Your task to perform on an android device: open device folders in google photos Image 0: 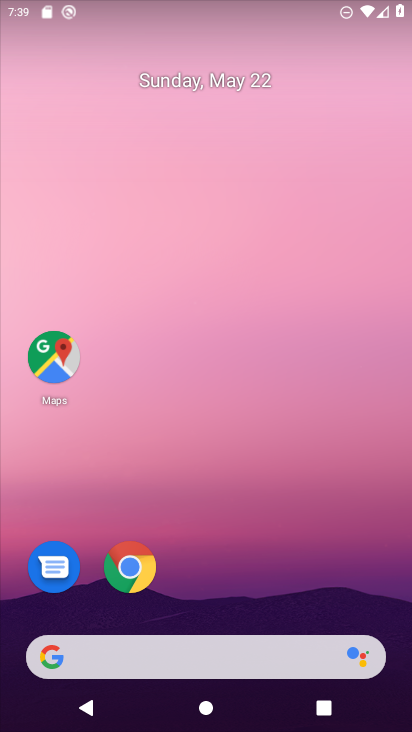
Step 0: drag from (219, 608) to (302, 73)
Your task to perform on an android device: open device folders in google photos Image 1: 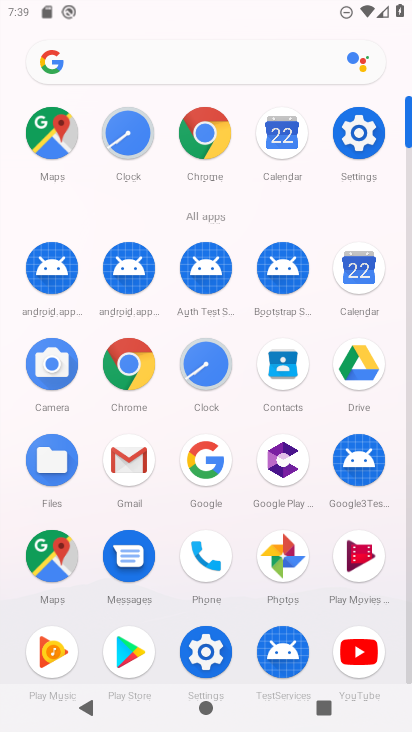
Step 1: click (281, 569)
Your task to perform on an android device: open device folders in google photos Image 2: 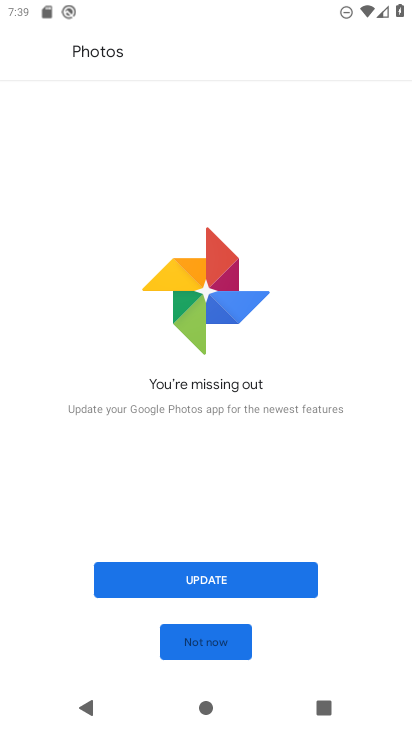
Step 2: click (226, 645)
Your task to perform on an android device: open device folders in google photos Image 3: 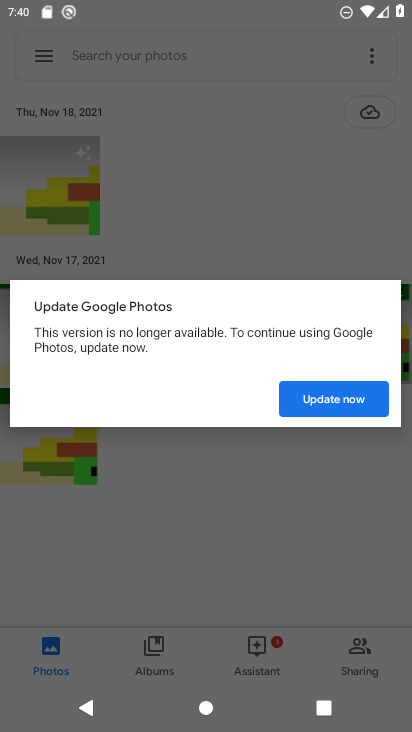
Step 3: click (325, 389)
Your task to perform on an android device: open device folders in google photos Image 4: 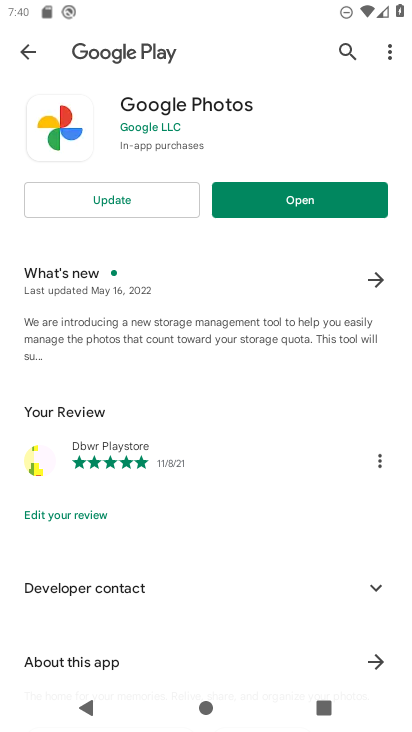
Step 4: click (279, 203)
Your task to perform on an android device: open device folders in google photos Image 5: 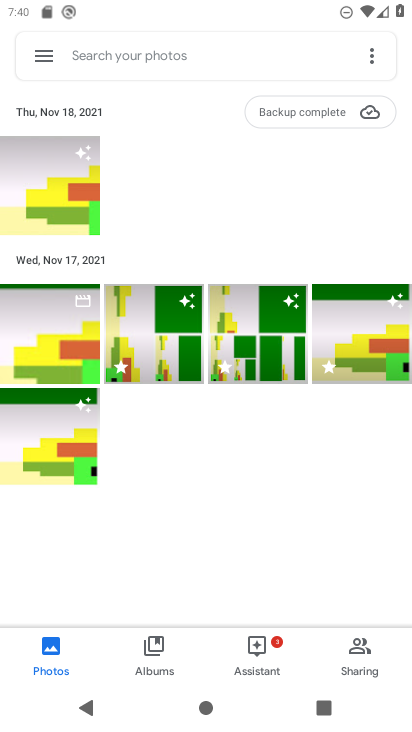
Step 5: click (41, 57)
Your task to perform on an android device: open device folders in google photos Image 6: 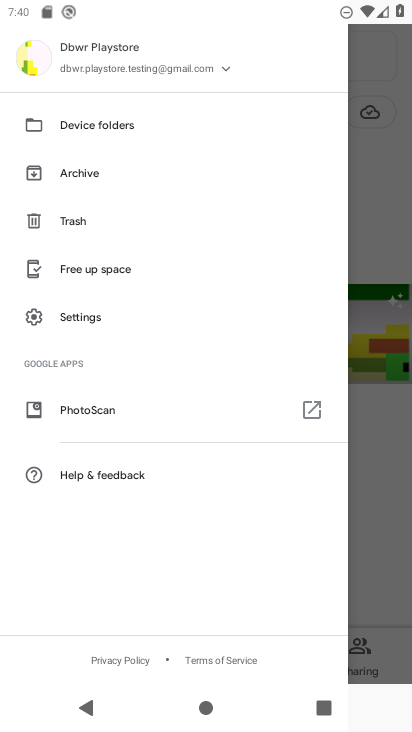
Step 6: click (129, 128)
Your task to perform on an android device: open device folders in google photos Image 7: 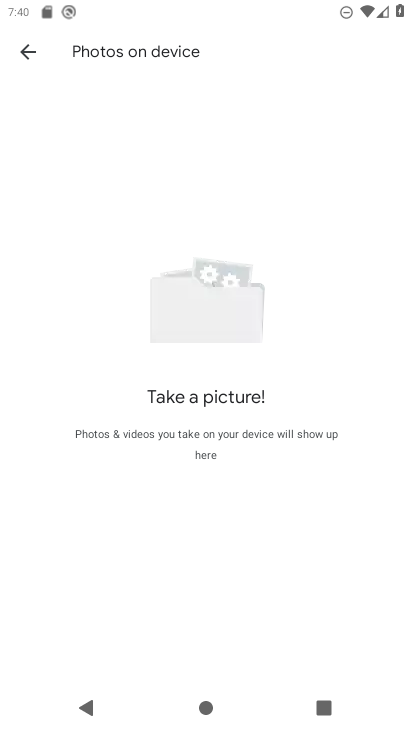
Step 7: task complete